Your task to perform on an android device: remove spam from my inbox in the gmail app Image 0: 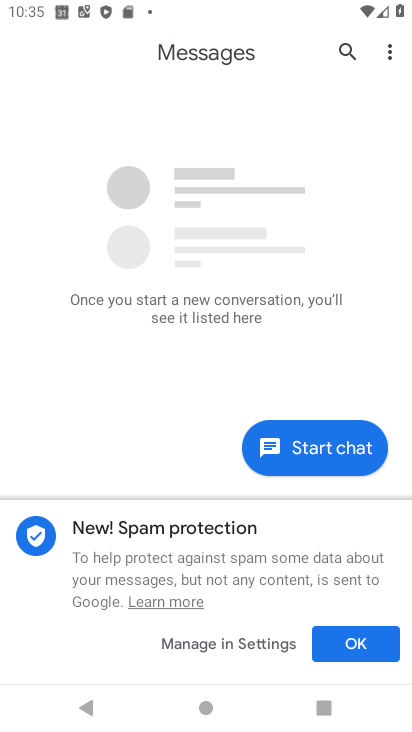
Step 0: press home button
Your task to perform on an android device: remove spam from my inbox in the gmail app Image 1: 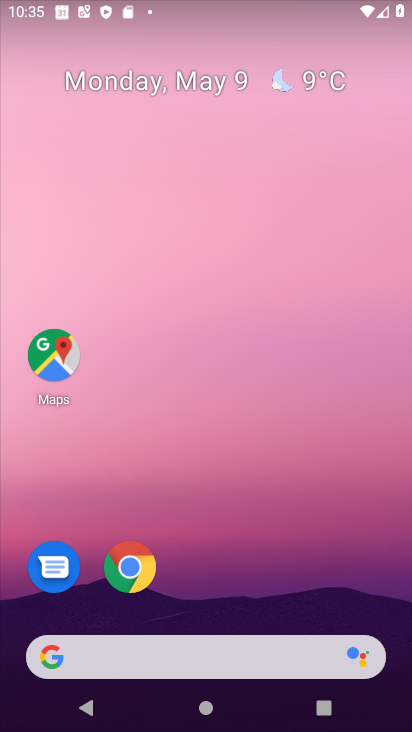
Step 1: drag from (211, 613) to (251, 4)
Your task to perform on an android device: remove spam from my inbox in the gmail app Image 2: 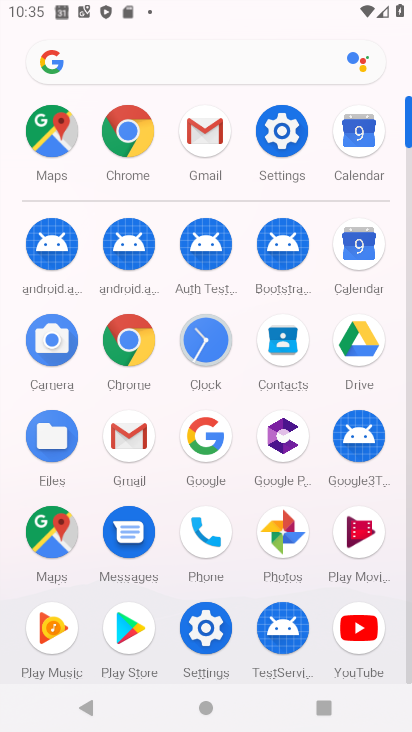
Step 2: click (127, 429)
Your task to perform on an android device: remove spam from my inbox in the gmail app Image 3: 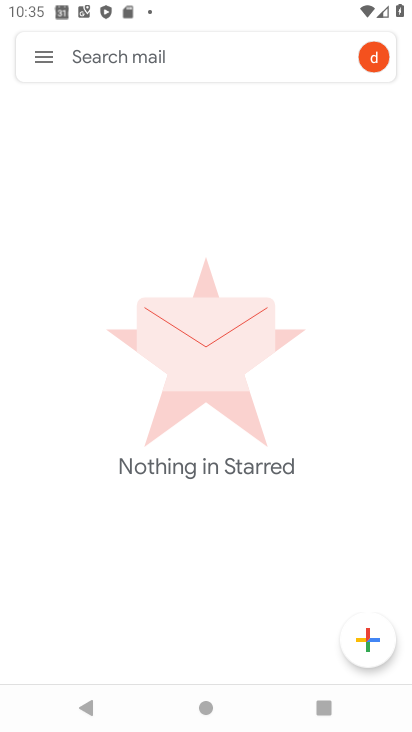
Step 3: click (39, 45)
Your task to perform on an android device: remove spam from my inbox in the gmail app Image 4: 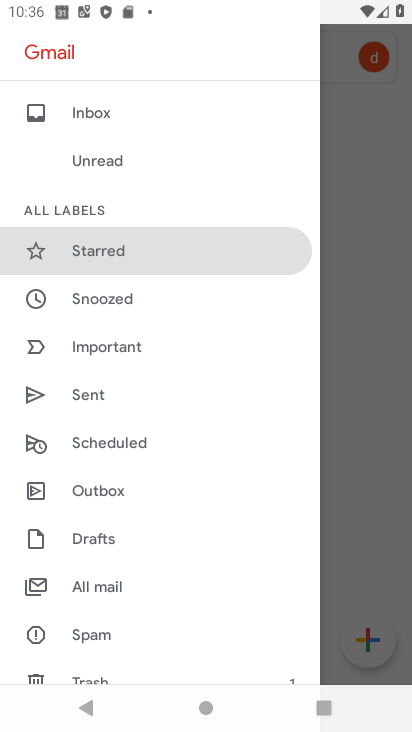
Step 4: click (115, 632)
Your task to perform on an android device: remove spam from my inbox in the gmail app Image 5: 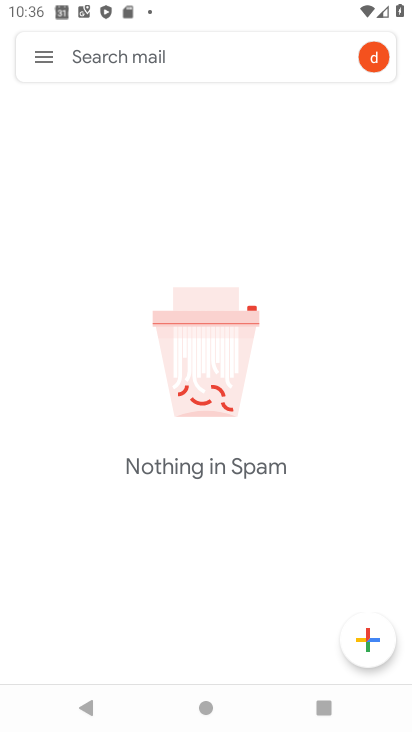
Step 5: task complete